Your task to perform on an android device: Open the phone app and click the voicemail tab. Image 0: 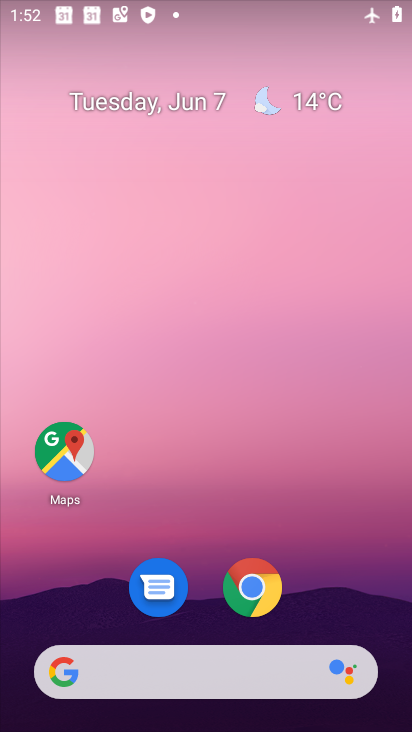
Step 0: drag from (240, 615) to (289, 159)
Your task to perform on an android device: Open the phone app and click the voicemail tab. Image 1: 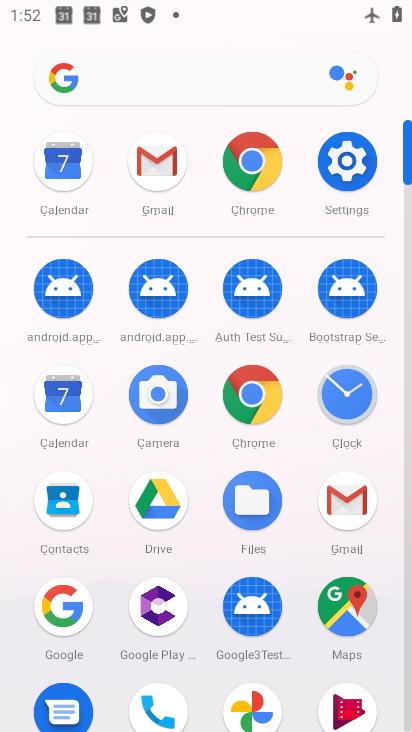
Step 1: drag from (224, 564) to (261, 226)
Your task to perform on an android device: Open the phone app and click the voicemail tab. Image 2: 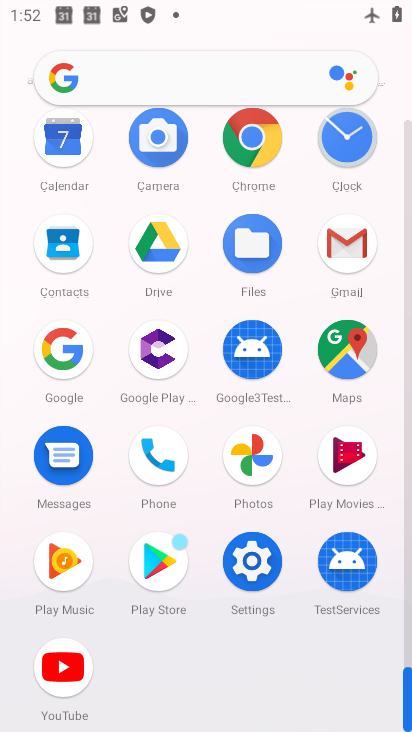
Step 2: click (147, 469)
Your task to perform on an android device: Open the phone app and click the voicemail tab. Image 3: 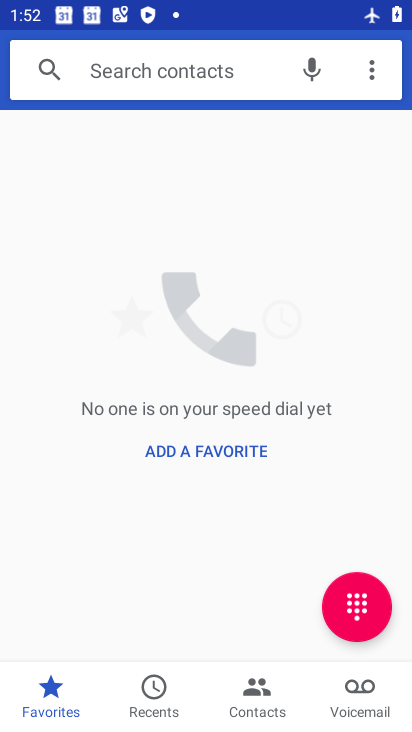
Step 3: click (390, 684)
Your task to perform on an android device: Open the phone app and click the voicemail tab. Image 4: 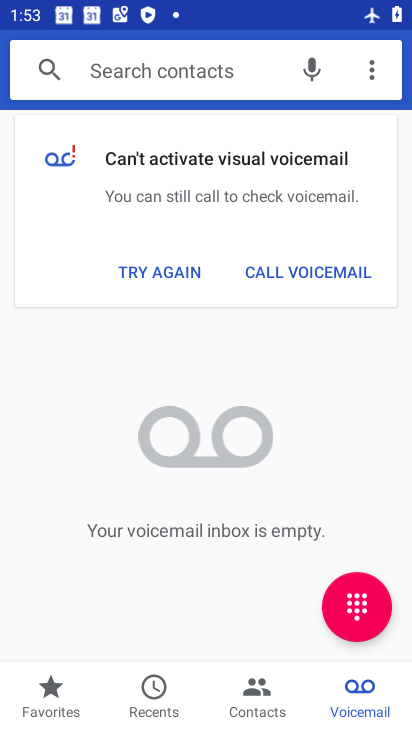
Step 4: task complete